Your task to perform on an android device: Open internet settings Image 0: 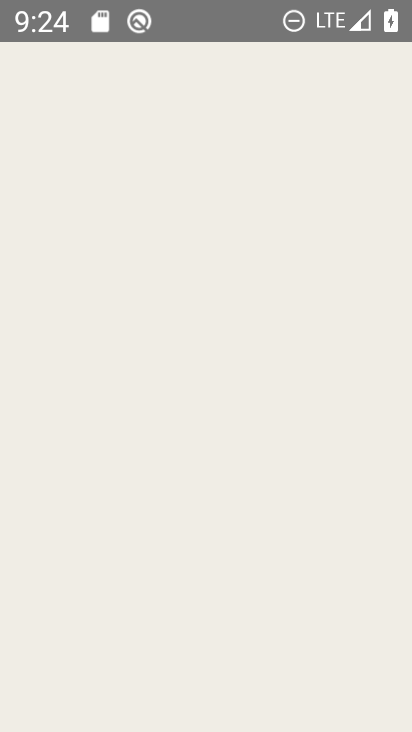
Step 0: drag from (222, 581) to (255, 149)
Your task to perform on an android device: Open internet settings Image 1: 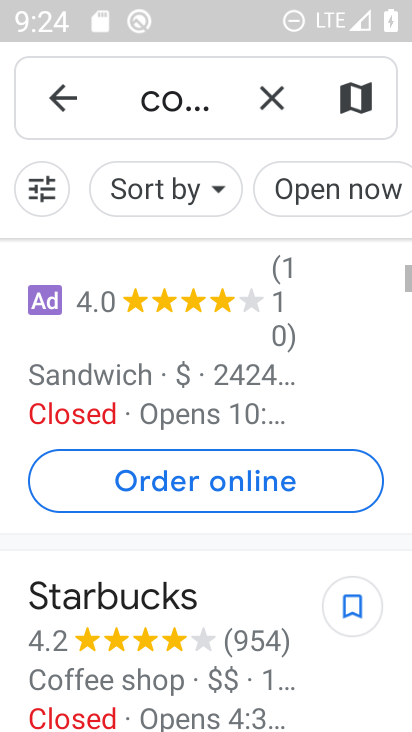
Step 1: press home button
Your task to perform on an android device: Open internet settings Image 2: 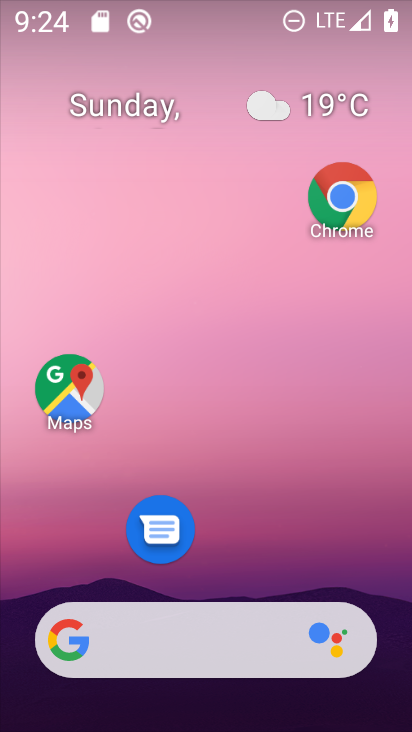
Step 2: drag from (224, 582) to (239, 43)
Your task to perform on an android device: Open internet settings Image 3: 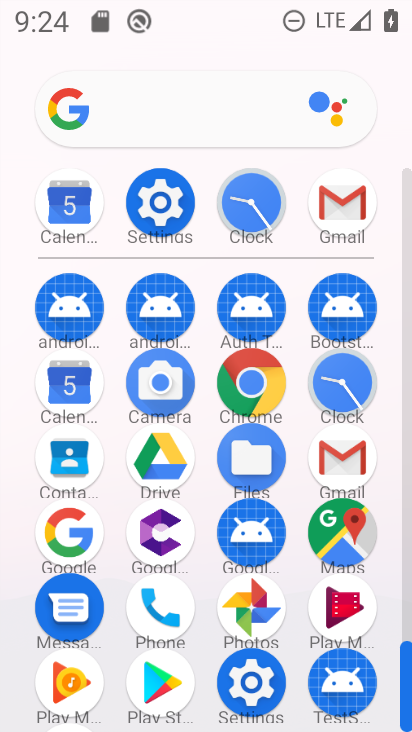
Step 3: click (158, 195)
Your task to perform on an android device: Open internet settings Image 4: 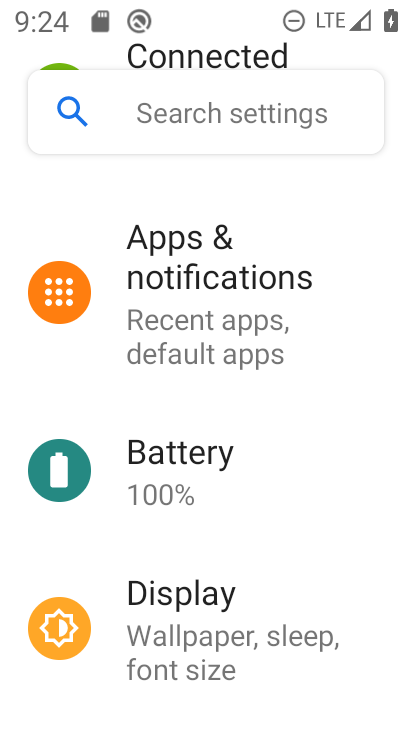
Step 4: drag from (279, 195) to (286, 644)
Your task to perform on an android device: Open internet settings Image 5: 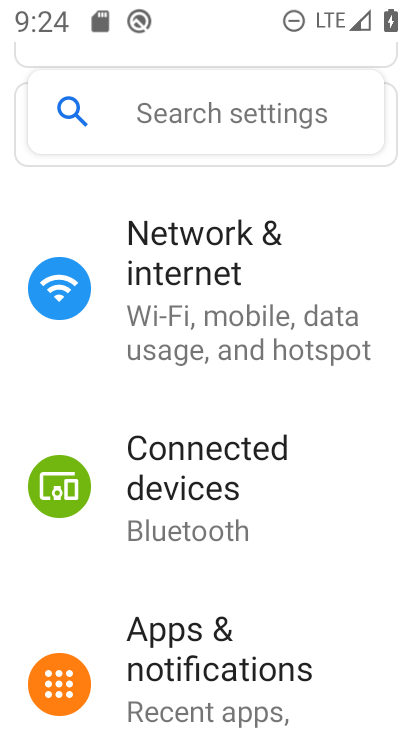
Step 5: click (264, 281)
Your task to perform on an android device: Open internet settings Image 6: 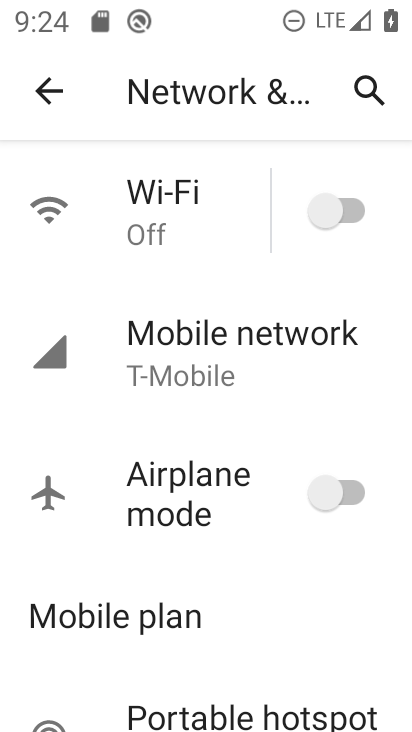
Step 6: drag from (203, 668) to (256, 120)
Your task to perform on an android device: Open internet settings Image 7: 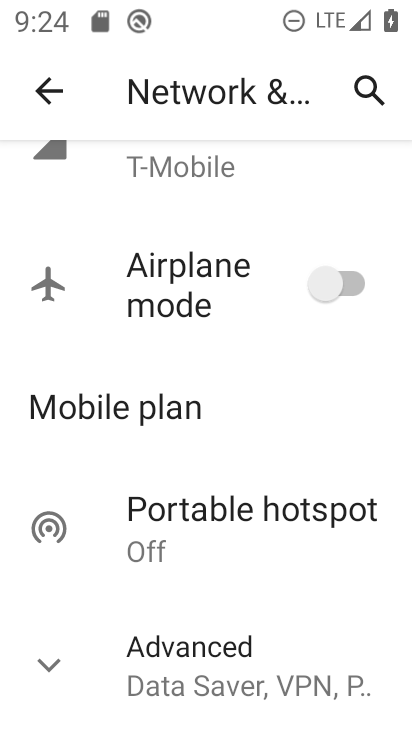
Step 7: click (45, 657)
Your task to perform on an android device: Open internet settings Image 8: 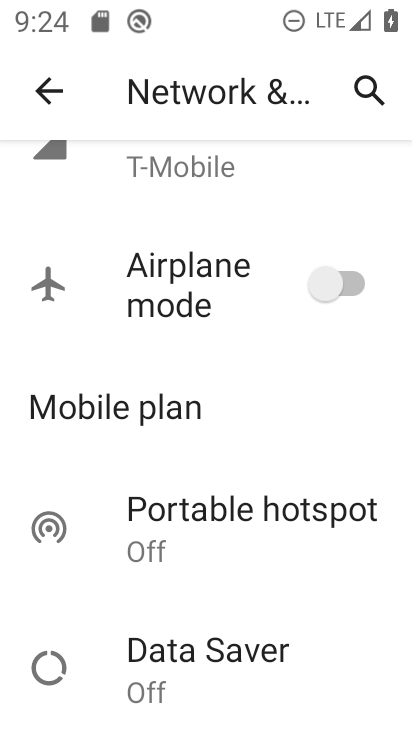
Step 8: task complete